Your task to perform on an android device: turn on the 24-hour format for clock Image 0: 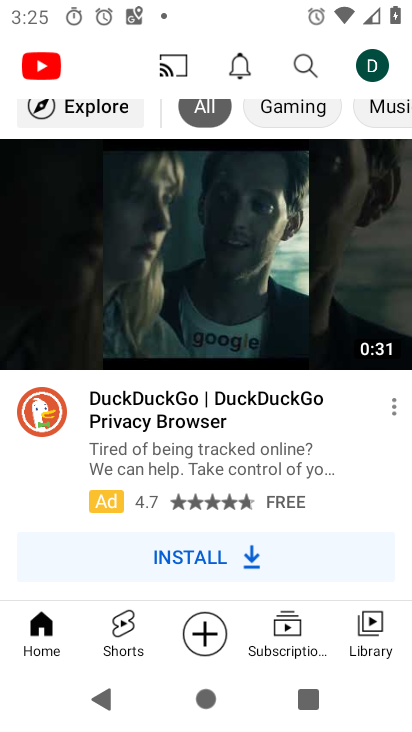
Step 0: press home button
Your task to perform on an android device: turn on the 24-hour format for clock Image 1: 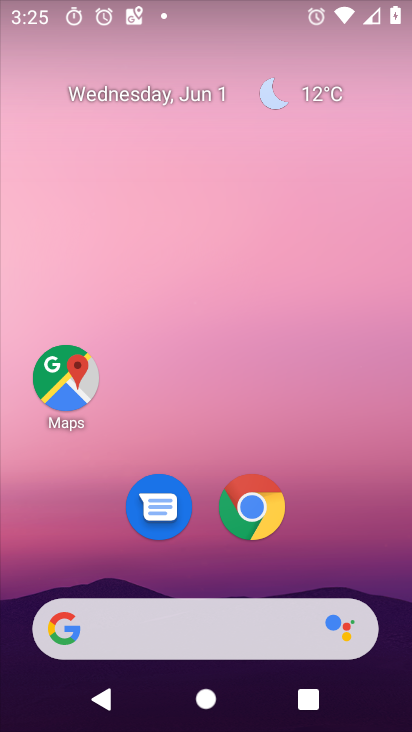
Step 1: drag from (347, 549) to (314, 12)
Your task to perform on an android device: turn on the 24-hour format for clock Image 2: 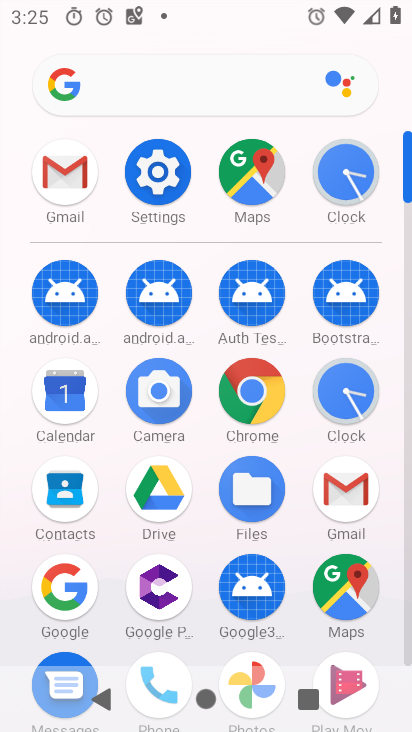
Step 2: click (338, 177)
Your task to perform on an android device: turn on the 24-hour format for clock Image 3: 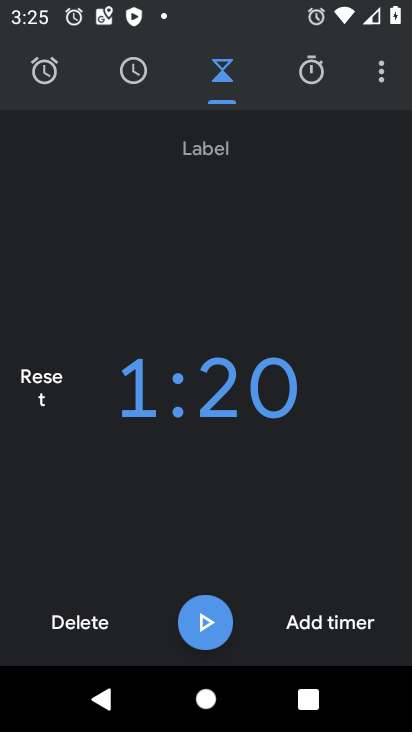
Step 3: click (383, 79)
Your task to perform on an android device: turn on the 24-hour format for clock Image 4: 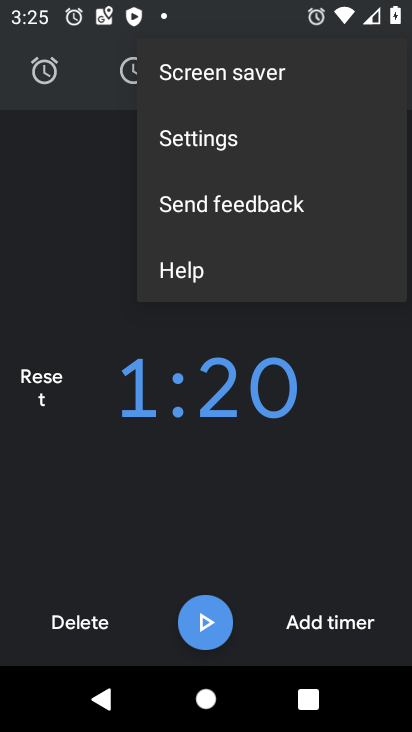
Step 4: click (200, 141)
Your task to perform on an android device: turn on the 24-hour format for clock Image 5: 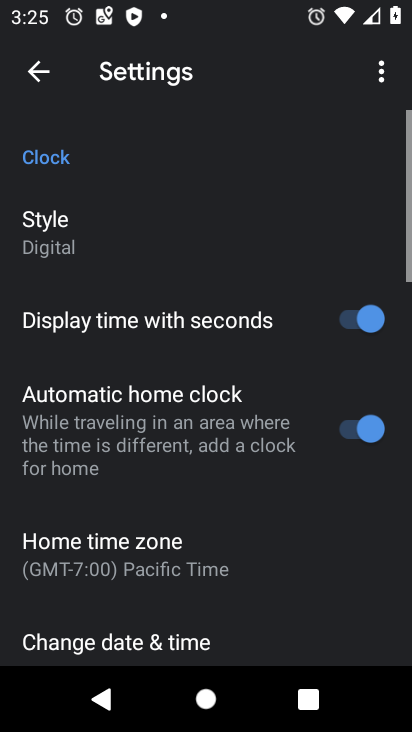
Step 5: drag from (199, 536) to (208, 264)
Your task to perform on an android device: turn on the 24-hour format for clock Image 6: 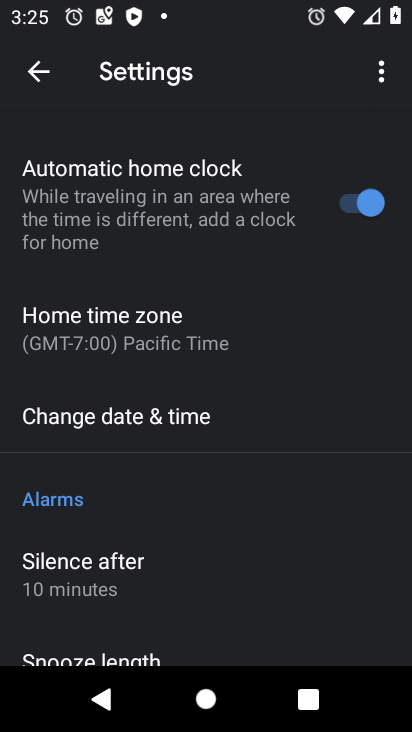
Step 6: click (105, 424)
Your task to perform on an android device: turn on the 24-hour format for clock Image 7: 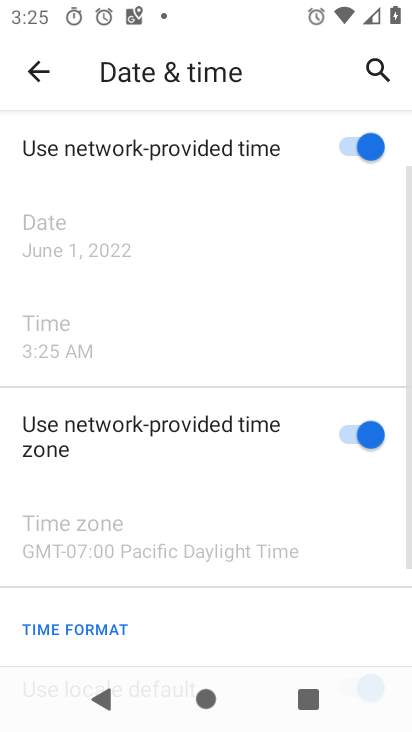
Step 7: drag from (154, 541) to (172, 207)
Your task to perform on an android device: turn on the 24-hour format for clock Image 8: 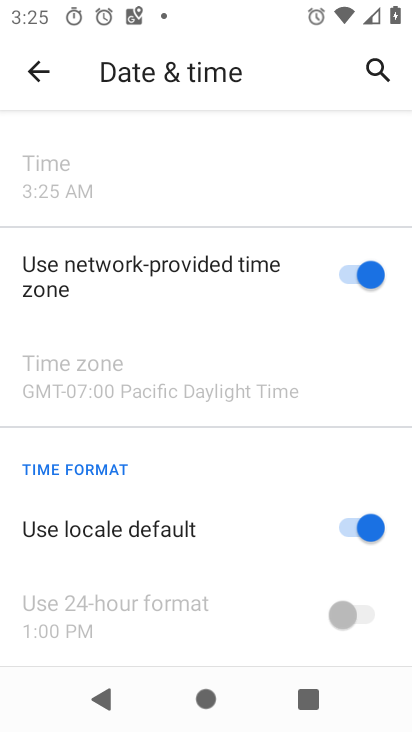
Step 8: drag from (136, 554) to (149, 341)
Your task to perform on an android device: turn on the 24-hour format for clock Image 9: 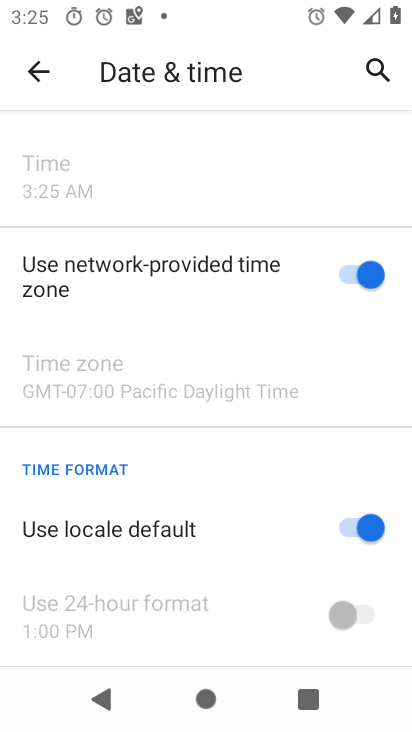
Step 9: click (362, 530)
Your task to perform on an android device: turn on the 24-hour format for clock Image 10: 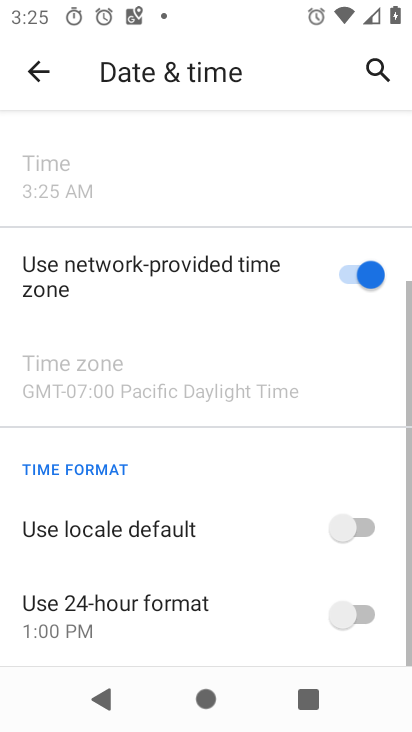
Step 10: click (356, 618)
Your task to perform on an android device: turn on the 24-hour format for clock Image 11: 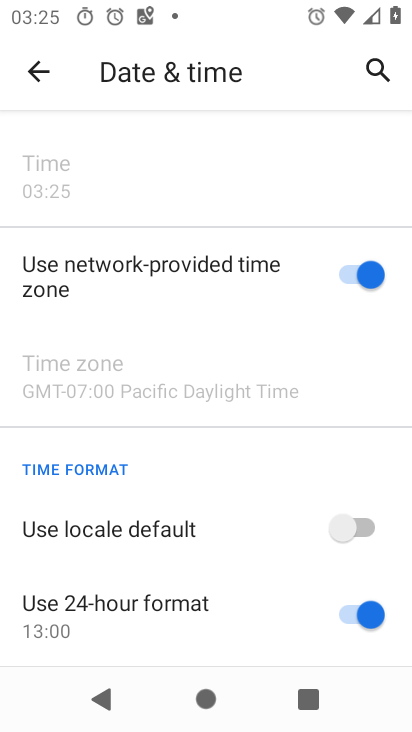
Step 11: task complete